Your task to perform on an android device: Go to calendar. Show me events next week Image 0: 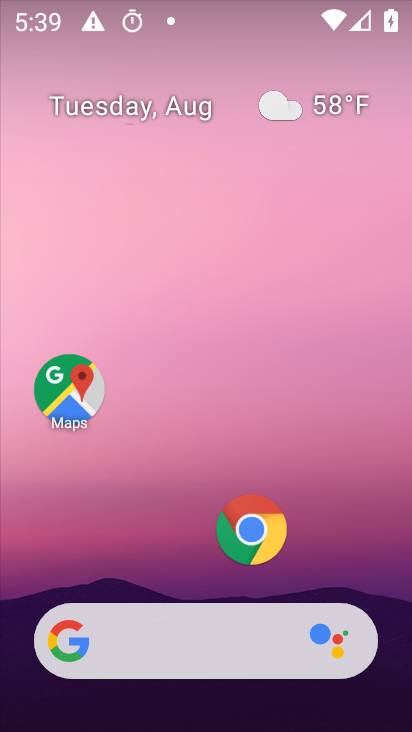
Step 0: drag from (178, 551) to (219, 203)
Your task to perform on an android device: Go to calendar. Show me events next week Image 1: 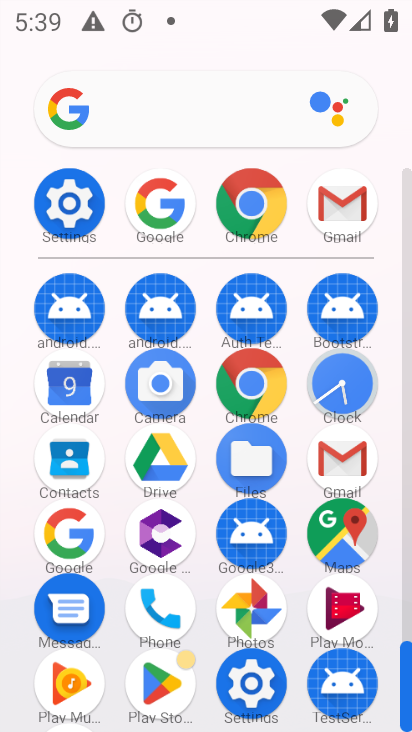
Step 1: click (66, 389)
Your task to perform on an android device: Go to calendar. Show me events next week Image 2: 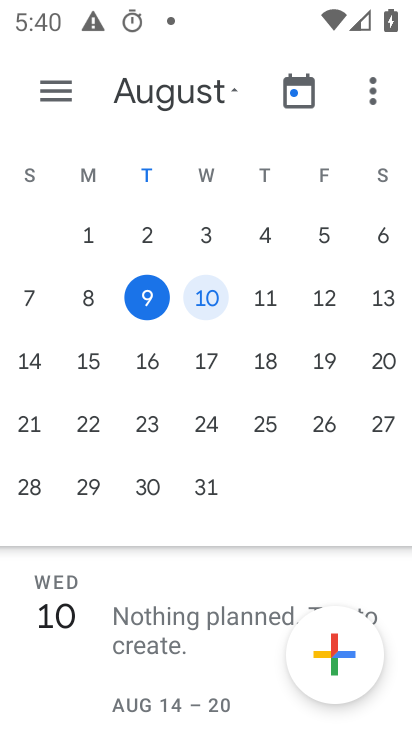
Step 2: click (24, 362)
Your task to perform on an android device: Go to calendar. Show me events next week Image 3: 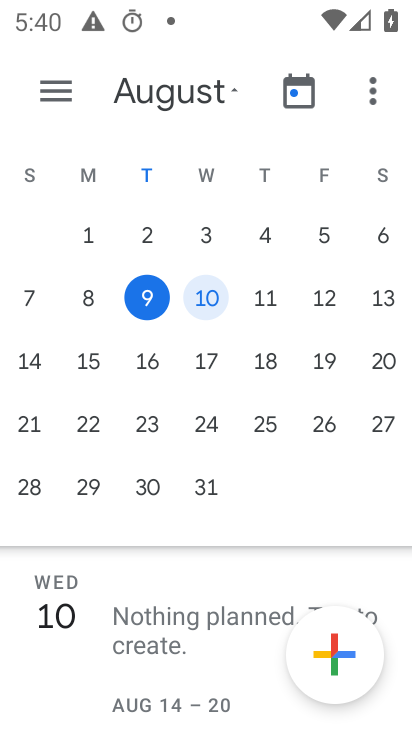
Step 3: click (80, 362)
Your task to perform on an android device: Go to calendar. Show me events next week Image 4: 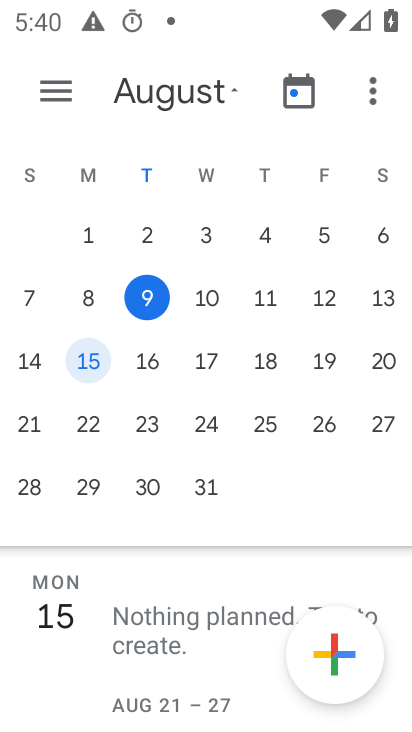
Step 4: click (49, 359)
Your task to perform on an android device: Go to calendar. Show me events next week Image 5: 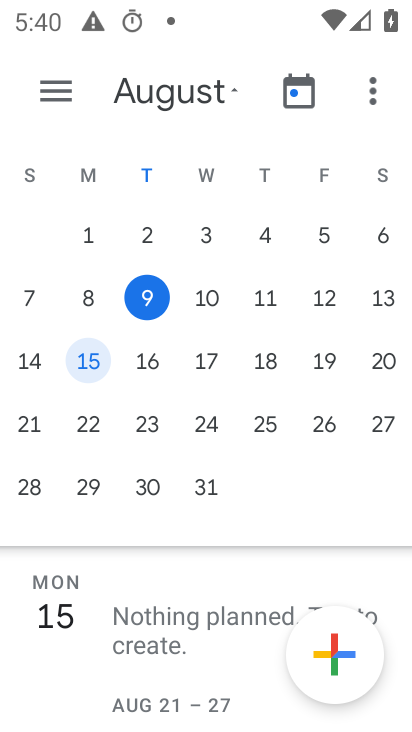
Step 5: click (42, 359)
Your task to perform on an android device: Go to calendar. Show me events next week Image 6: 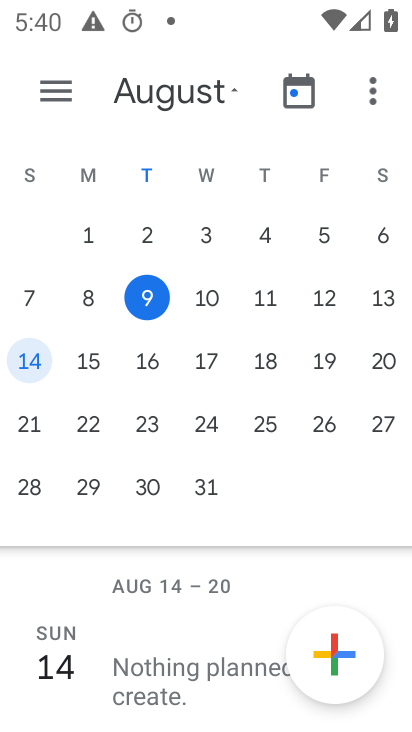
Step 6: click (68, 360)
Your task to perform on an android device: Go to calendar. Show me events next week Image 7: 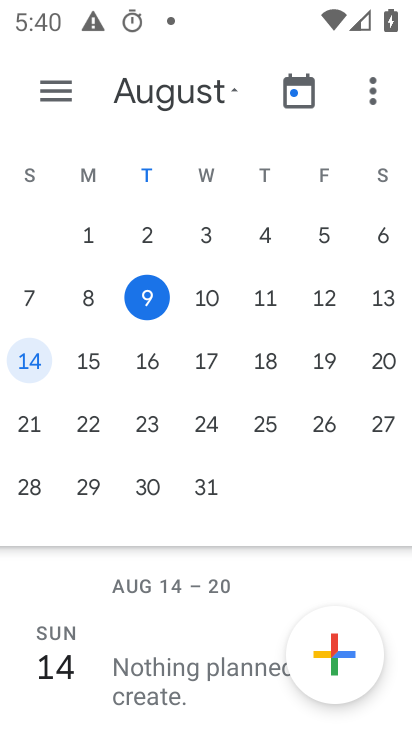
Step 7: click (149, 378)
Your task to perform on an android device: Go to calendar. Show me events next week Image 8: 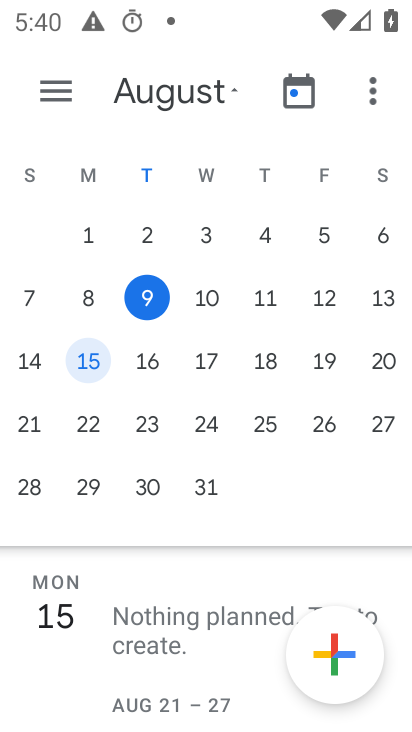
Step 8: task complete